Your task to perform on an android device: open sync settings in chrome Image 0: 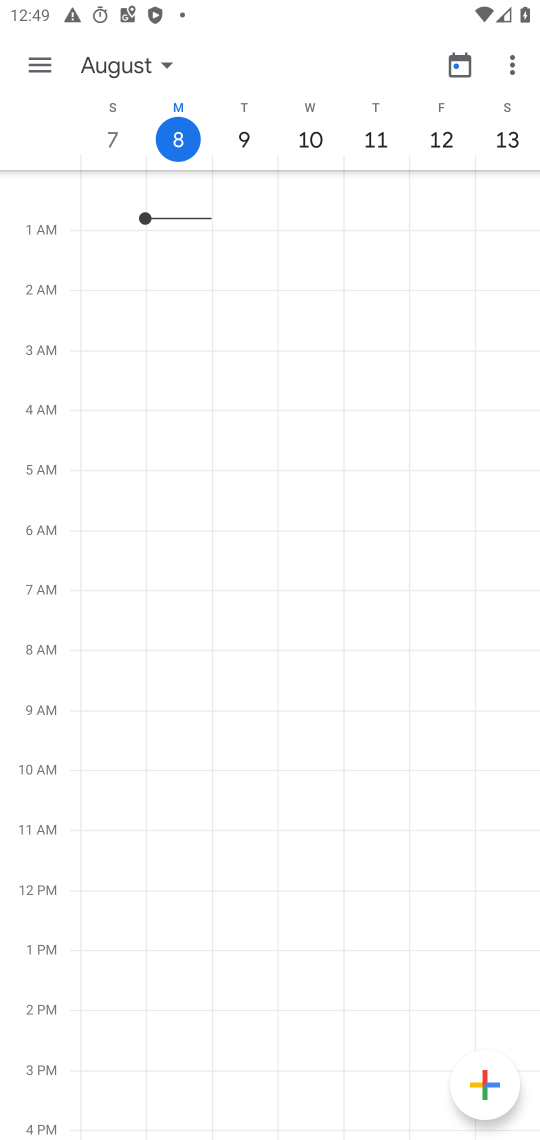
Step 0: press home button
Your task to perform on an android device: open sync settings in chrome Image 1: 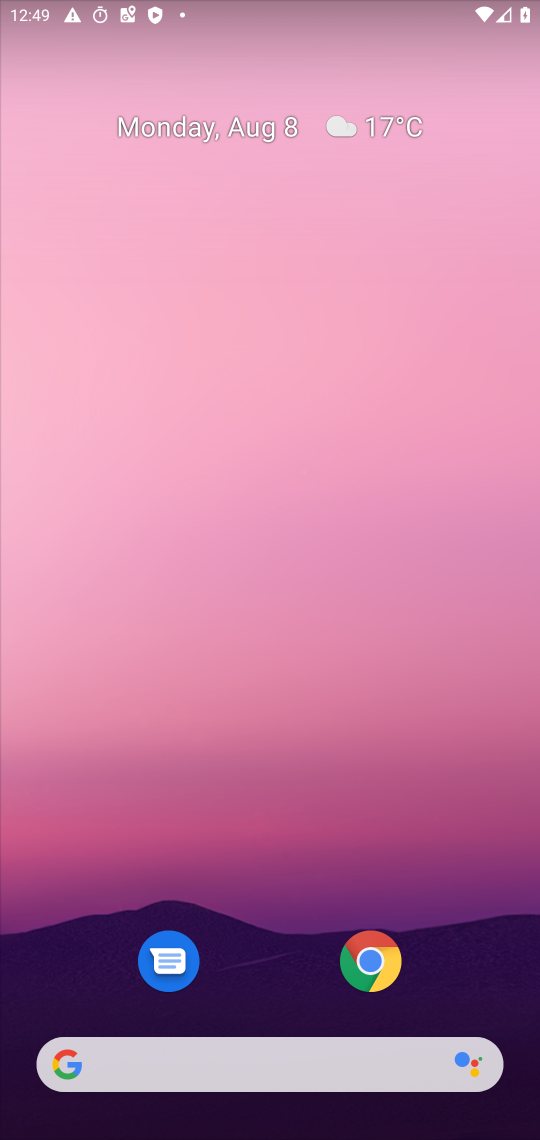
Step 1: drag from (290, 1051) to (304, 263)
Your task to perform on an android device: open sync settings in chrome Image 2: 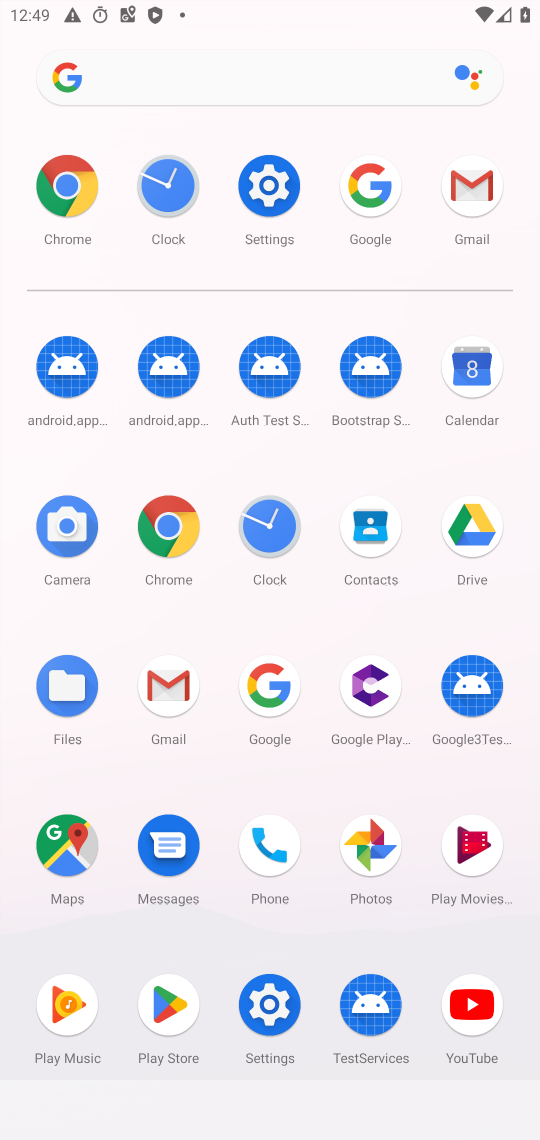
Step 2: click (181, 510)
Your task to perform on an android device: open sync settings in chrome Image 3: 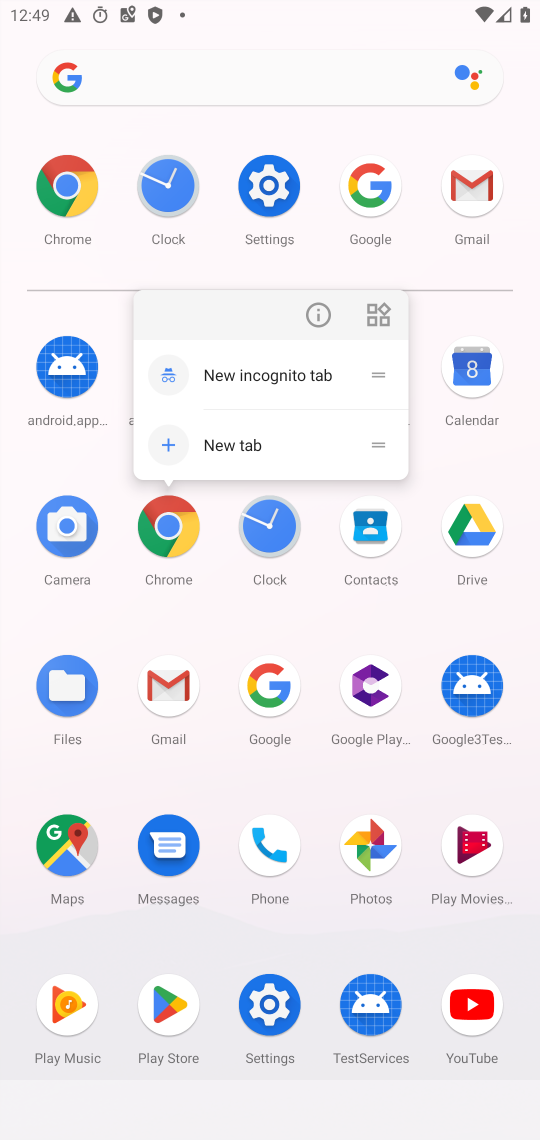
Step 3: click (178, 525)
Your task to perform on an android device: open sync settings in chrome Image 4: 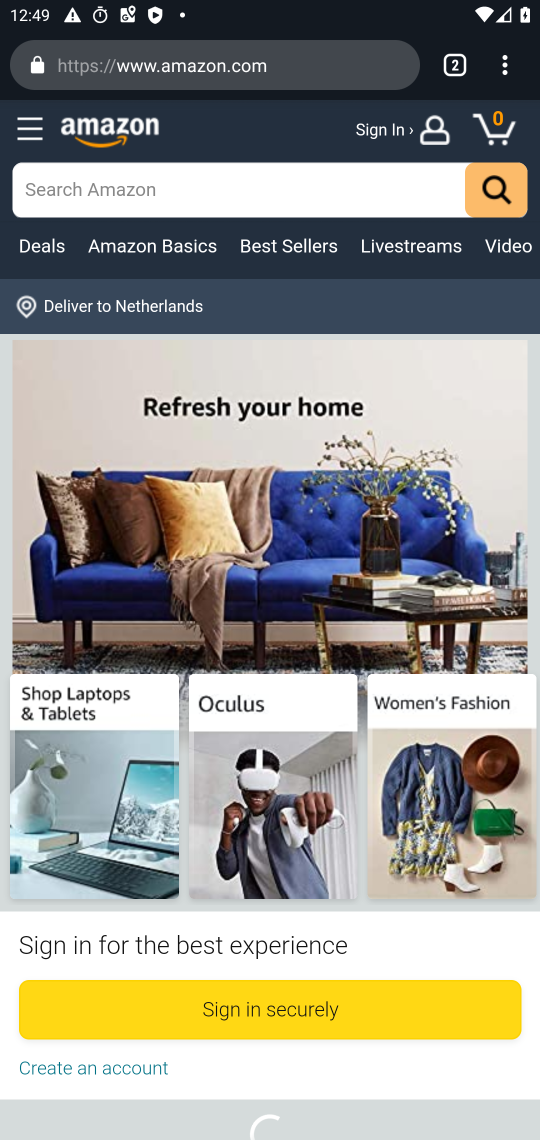
Step 4: click (518, 61)
Your task to perform on an android device: open sync settings in chrome Image 5: 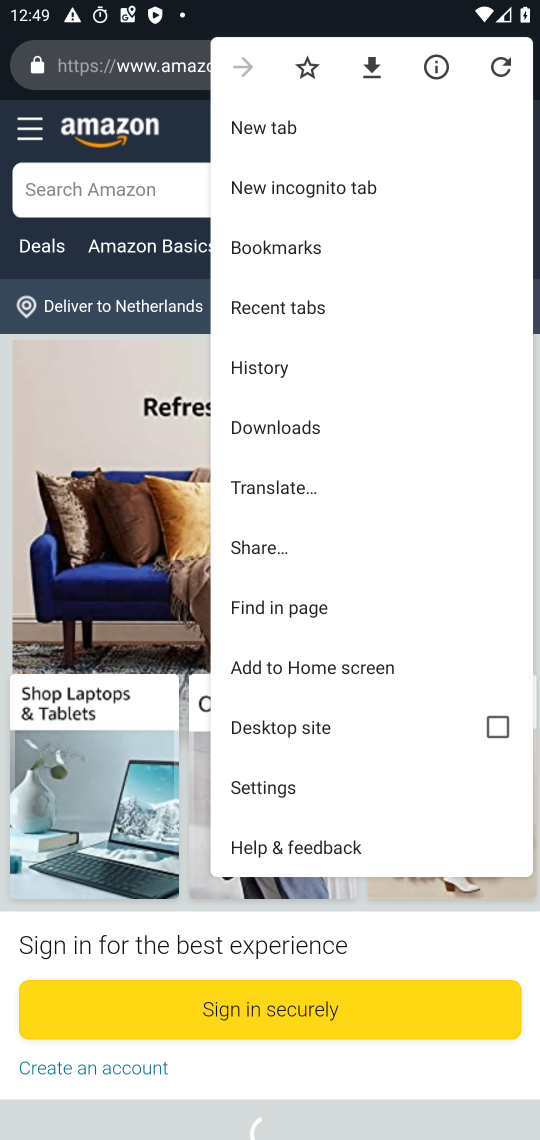
Step 5: click (270, 787)
Your task to perform on an android device: open sync settings in chrome Image 6: 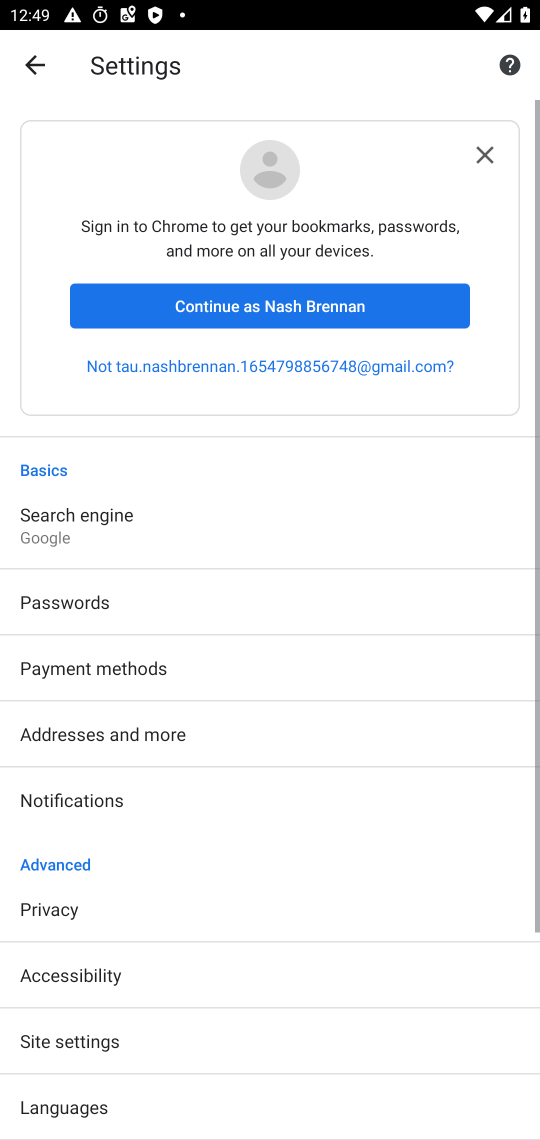
Step 6: drag from (442, 1076) to (467, 129)
Your task to perform on an android device: open sync settings in chrome Image 7: 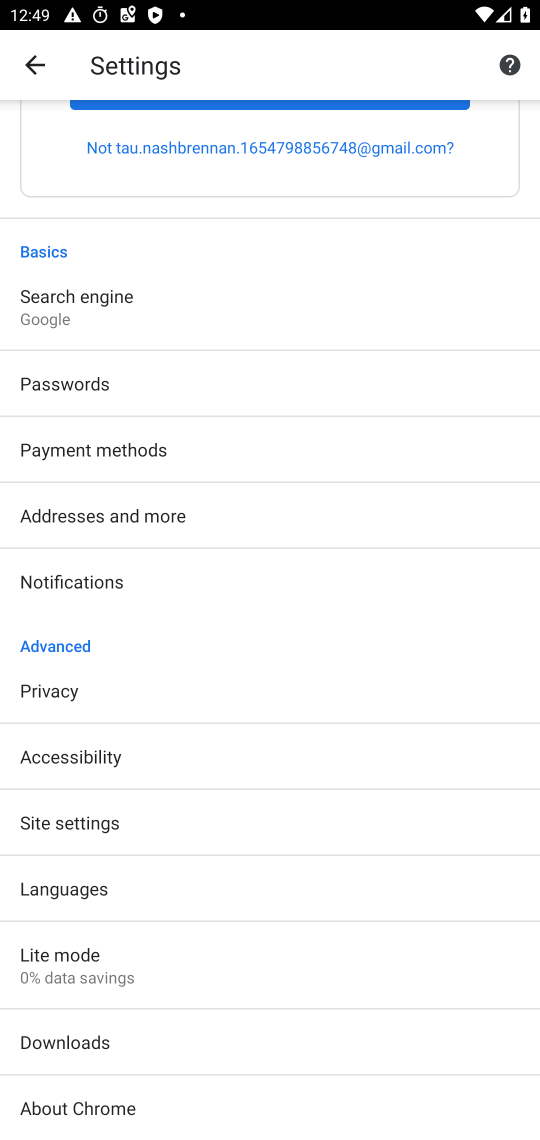
Step 7: click (132, 891)
Your task to perform on an android device: open sync settings in chrome Image 8: 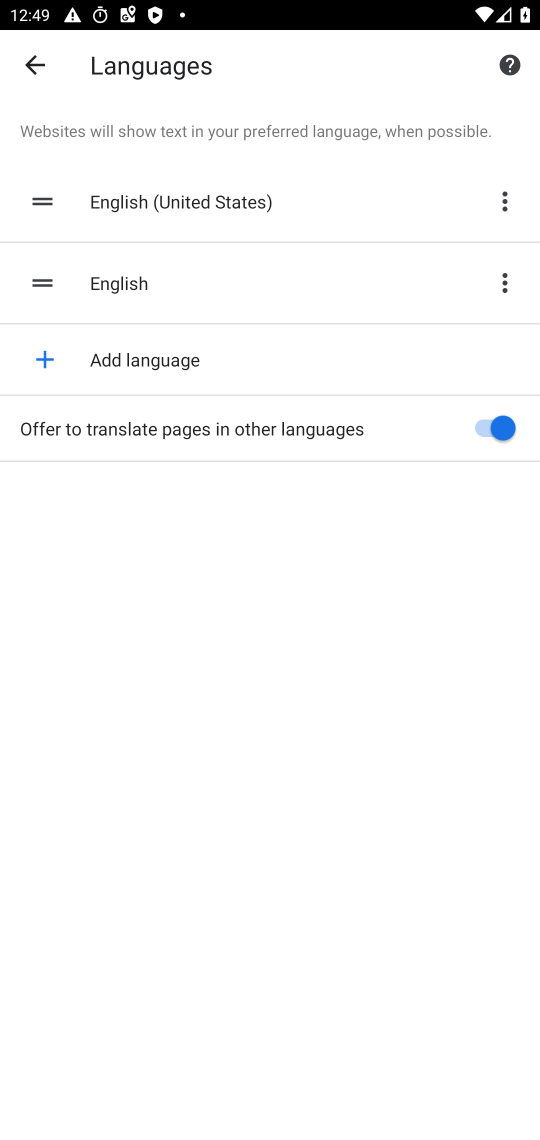
Step 8: press back button
Your task to perform on an android device: open sync settings in chrome Image 9: 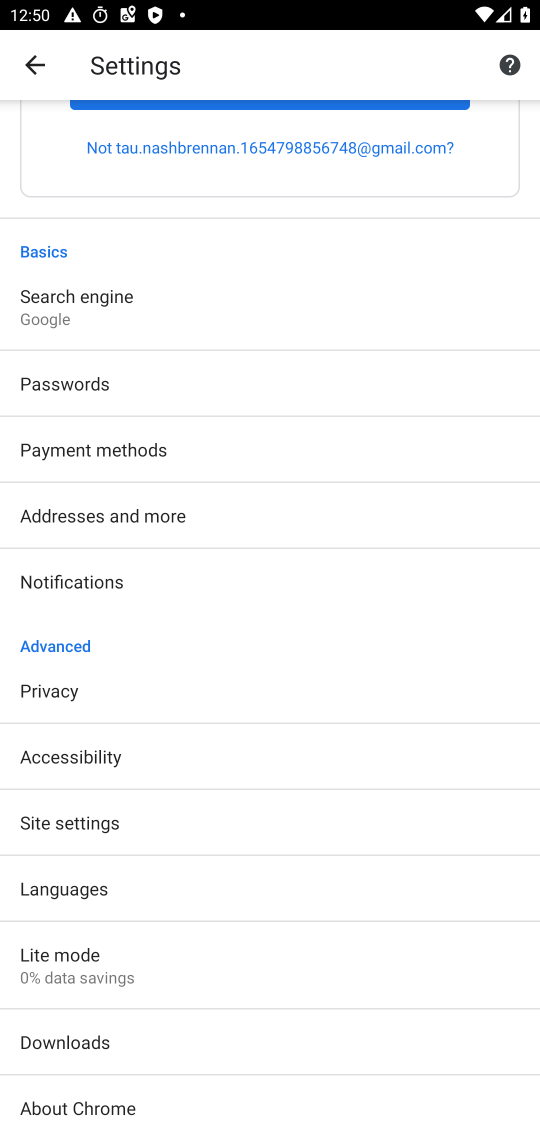
Step 9: click (189, 819)
Your task to perform on an android device: open sync settings in chrome Image 10: 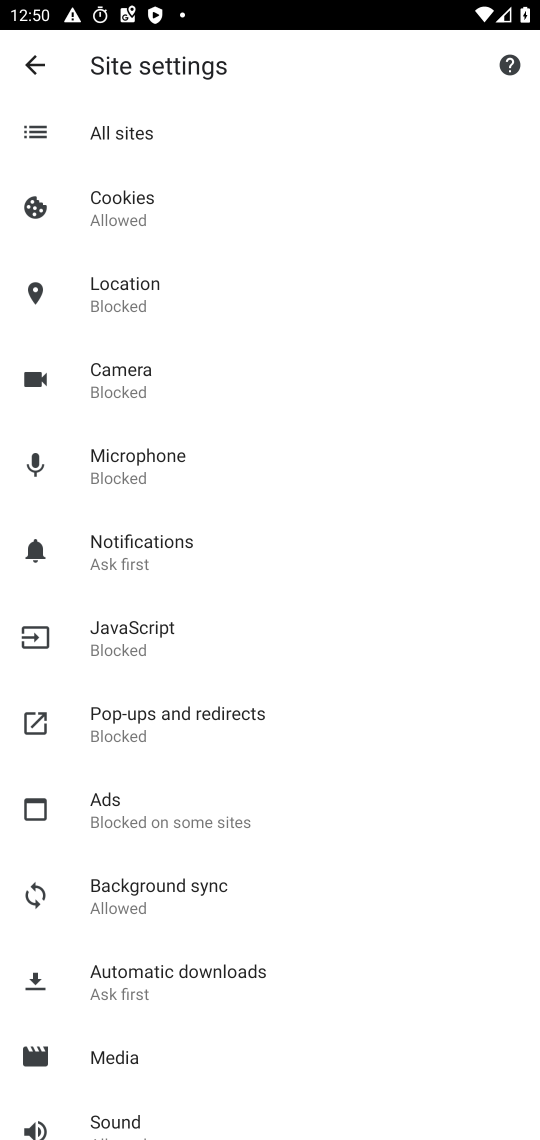
Step 10: click (159, 883)
Your task to perform on an android device: open sync settings in chrome Image 11: 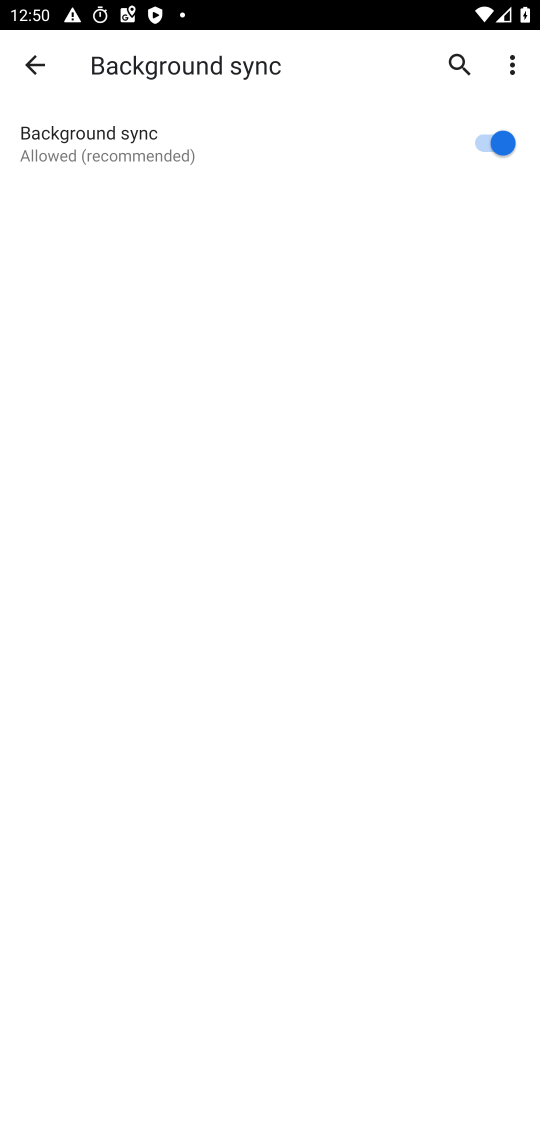
Step 11: task complete